Your task to perform on an android device: change keyboard looks Image 0: 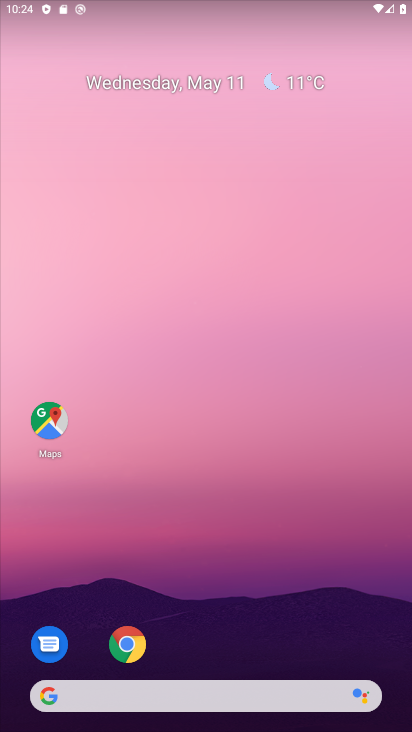
Step 0: drag from (350, 143) to (318, 25)
Your task to perform on an android device: change keyboard looks Image 1: 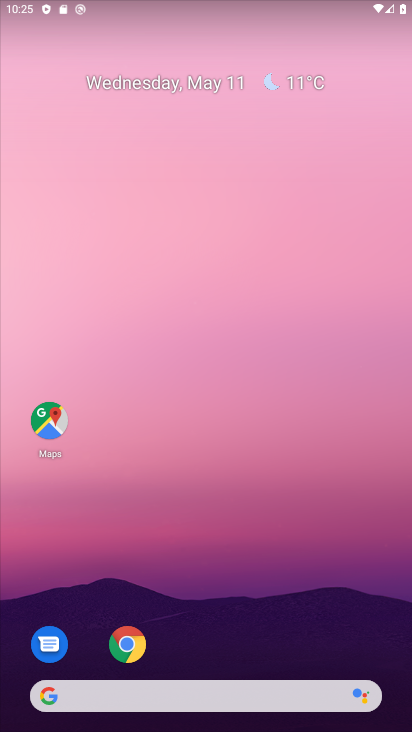
Step 1: drag from (255, 439) to (231, 67)
Your task to perform on an android device: change keyboard looks Image 2: 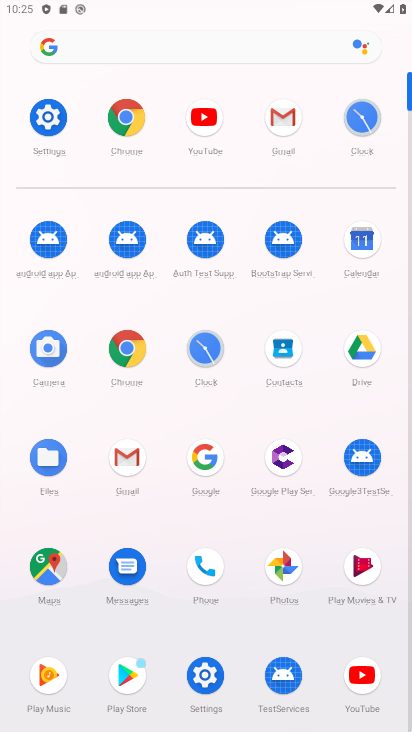
Step 2: click (35, 121)
Your task to perform on an android device: change keyboard looks Image 3: 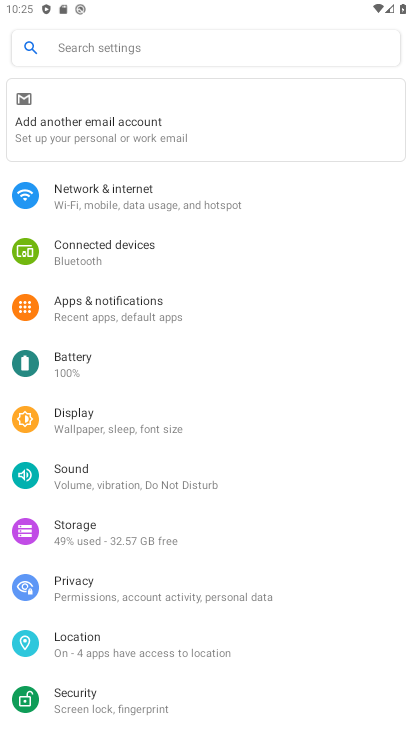
Step 3: drag from (221, 583) to (205, 235)
Your task to perform on an android device: change keyboard looks Image 4: 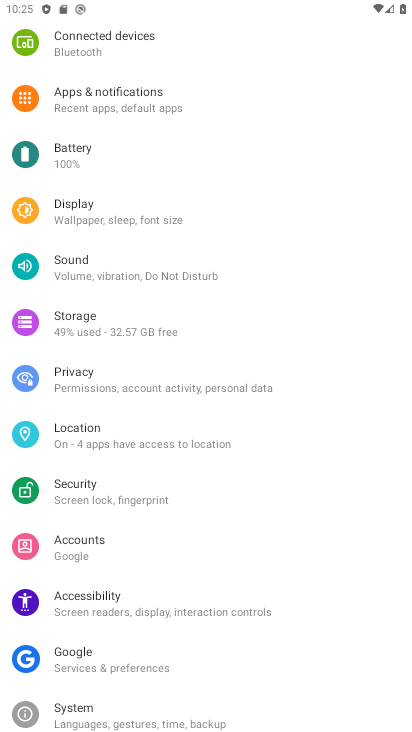
Step 4: click (77, 708)
Your task to perform on an android device: change keyboard looks Image 5: 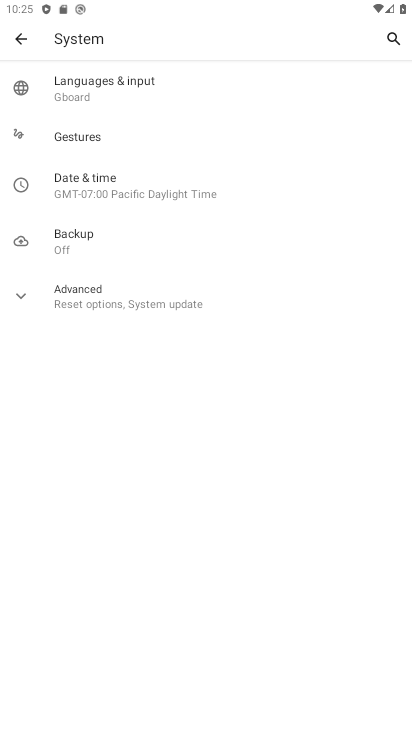
Step 5: click (99, 93)
Your task to perform on an android device: change keyboard looks Image 6: 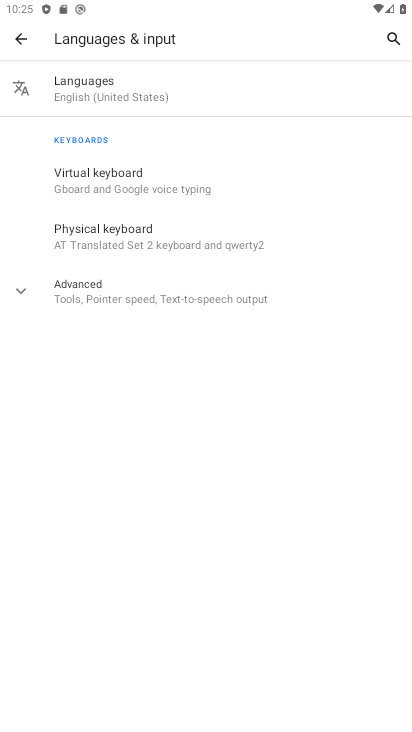
Step 6: click (90, 182)
Your task to perform on an android device: change keyboard looks Image 7: 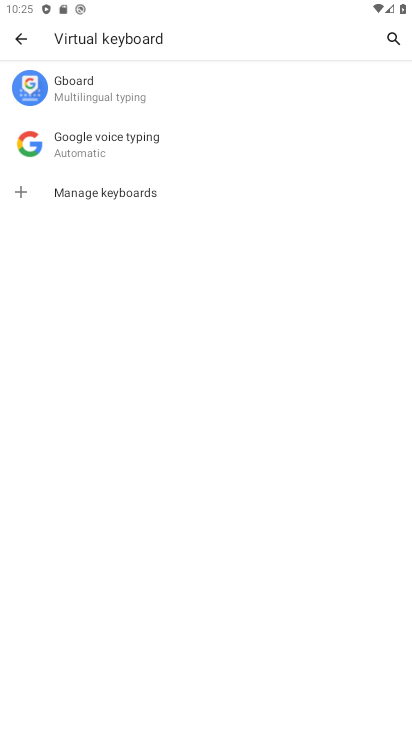
Step 7: click (72, 80)
Your task to perform on an android device: change keyboard looks Image 8: 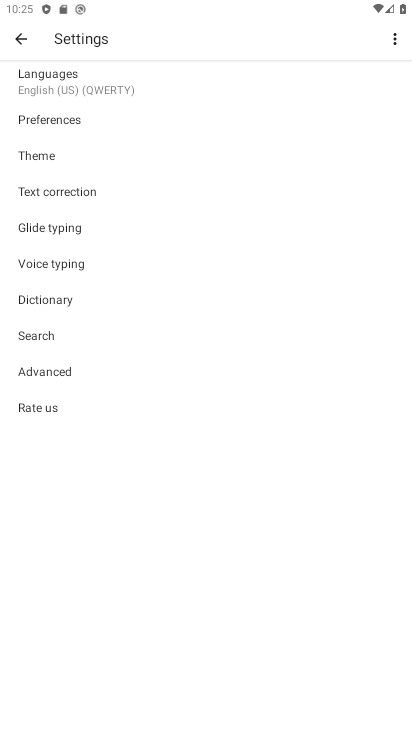
Step 8: click (37, 157)
Your task to perform on an android device: change keyboard looks Image 9: 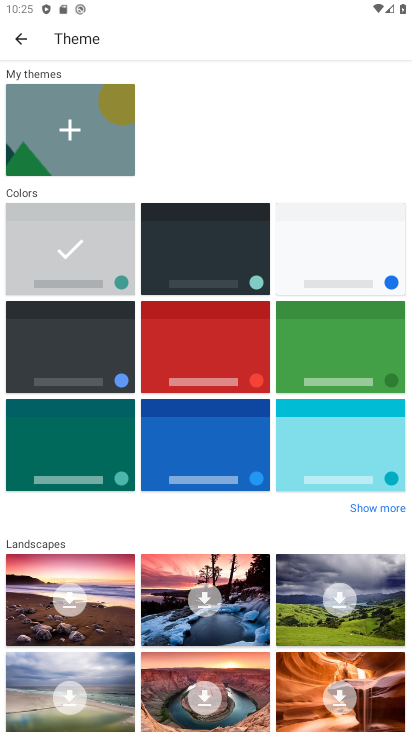
Step 9: click (350, 340)
Your task to perform on an android device: change keyboard looks Image 10: 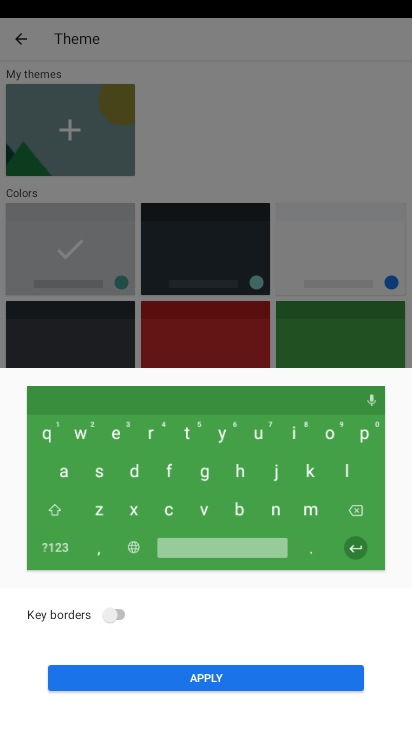
Step 10: click (120, 619)
Your task to perform on an android device: change keyboard looks Image 11: 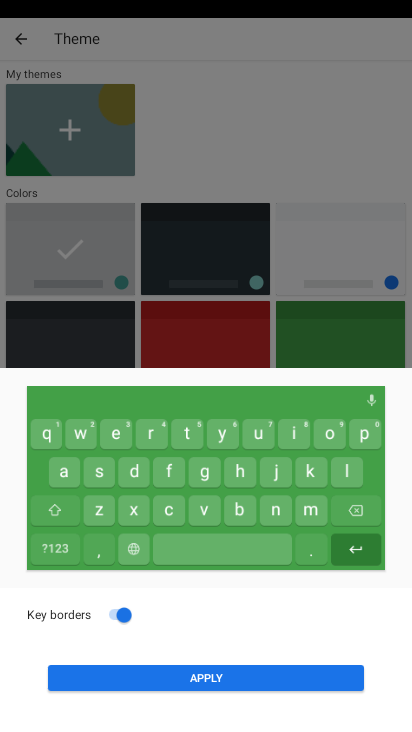
Step 11: click (204, 668)
Your task to perform on an android device: change keyboard looks Image 12: 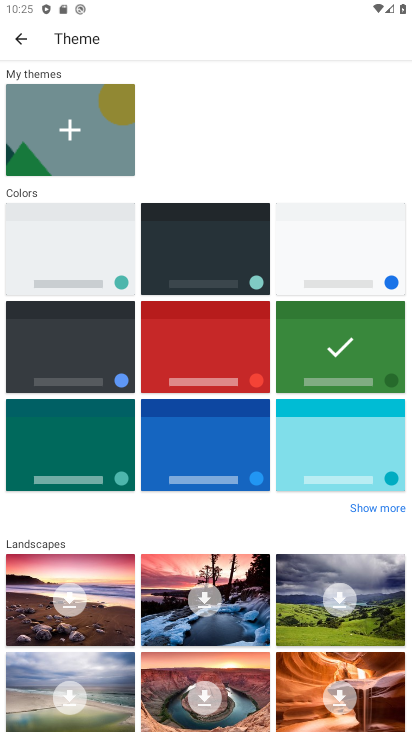
Step 12: task complete